Your task to perform on an android device: Is it going to rain today? Image 0: 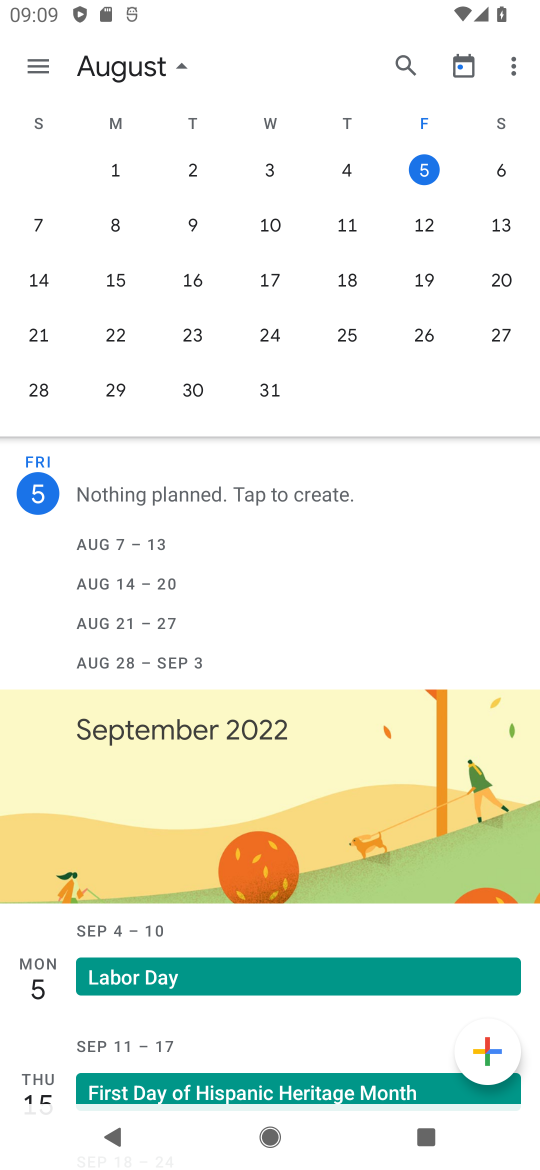
Step 0: press home button
Your task to perform on an android device: Is it going to rain today? Image 1: 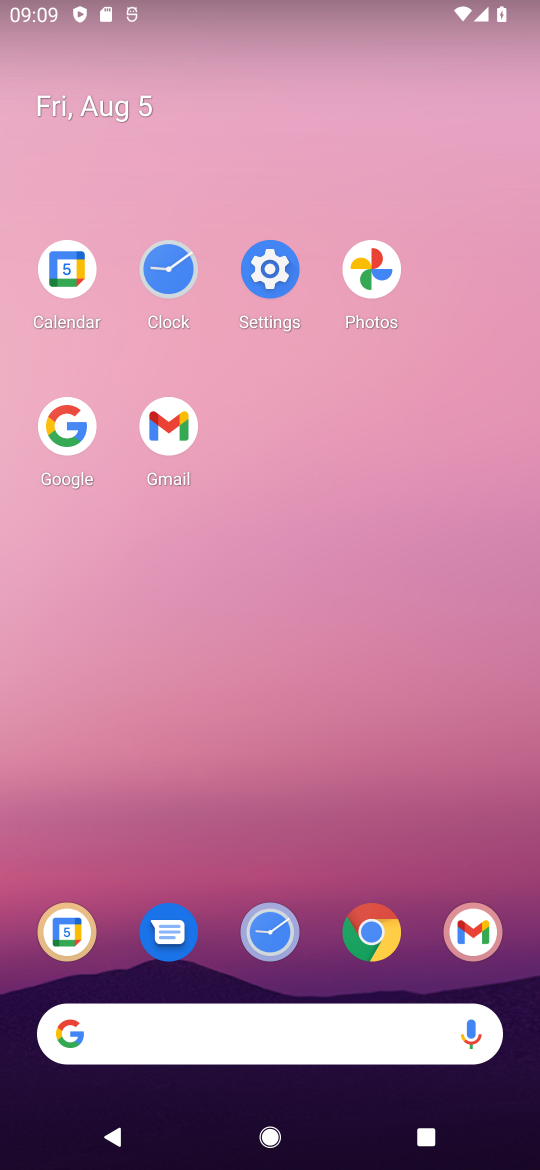
Step 1: click (74, 434)
Your task to perform on an android device: Is it going to rain today? Image 2: 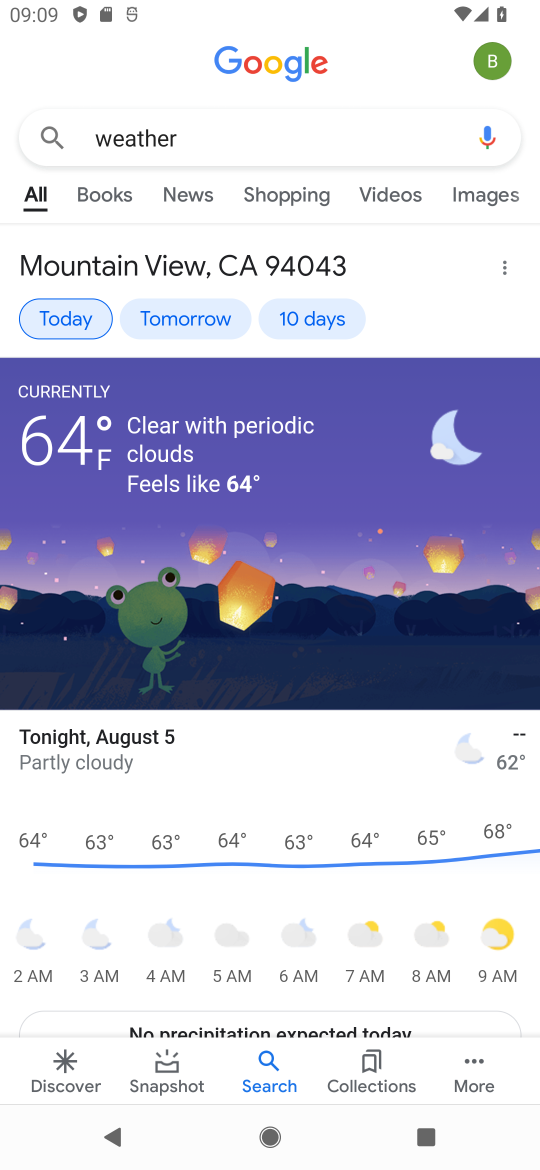
Step 2: task complete